Your task to perform on an android device: toggle location history Image 0: 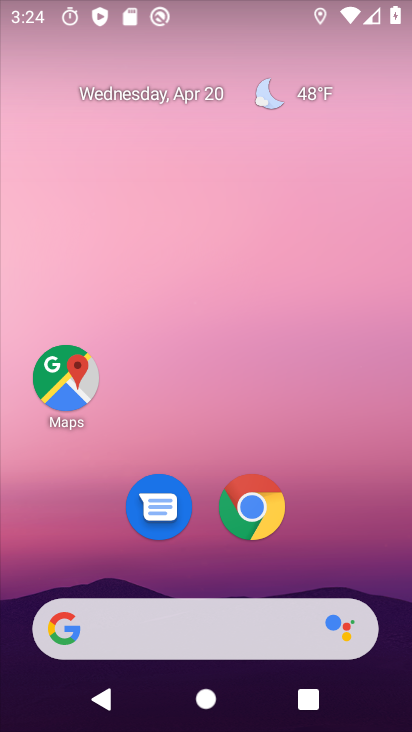
Step 0: drag from (211, 604) to (243, 178)
Your task to perform on an android device: toggle location history Image 1: 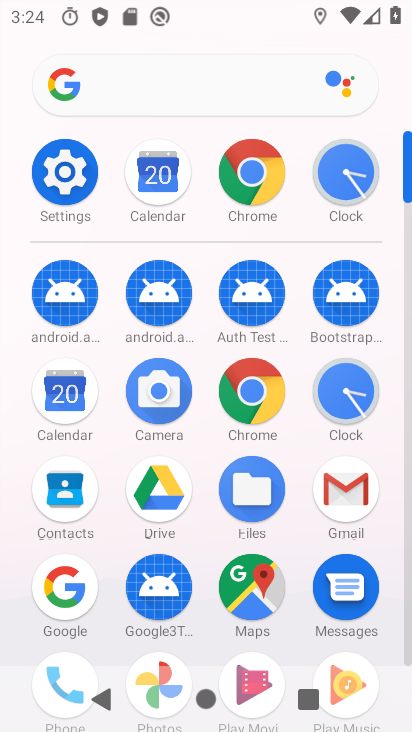
Step 1: click (74, 201)
Your task to perform on an android device: toggle location history Image 2: 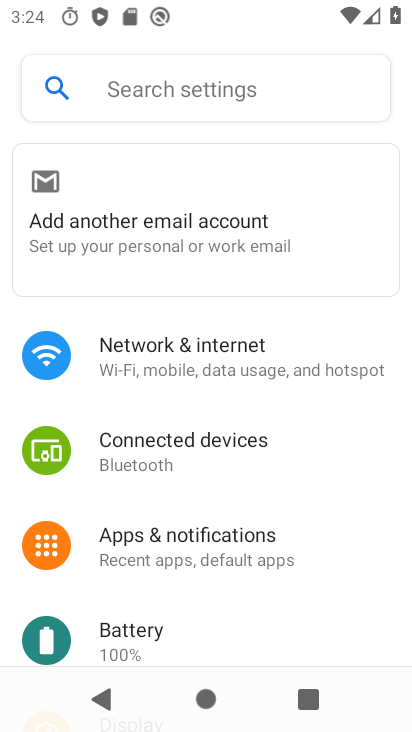
Step 2: drag from (124, 432) to (163, 4)
Your task to perform on an android device: toggle location history Image 3: 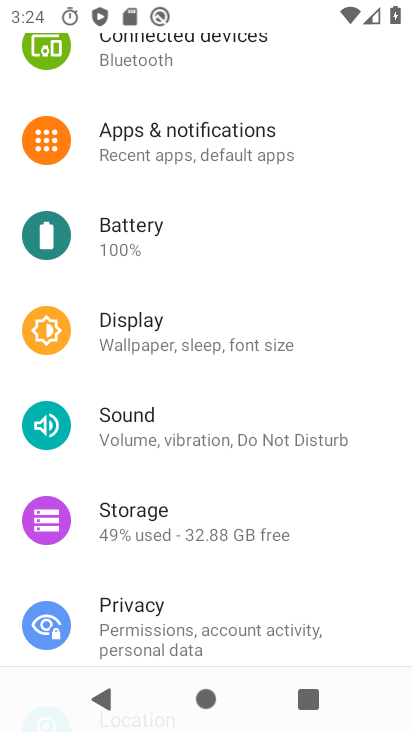
Step 3: drag from (168, 543) to (180, 206)
Your task to perform on an android device: toggle location history Image 4: 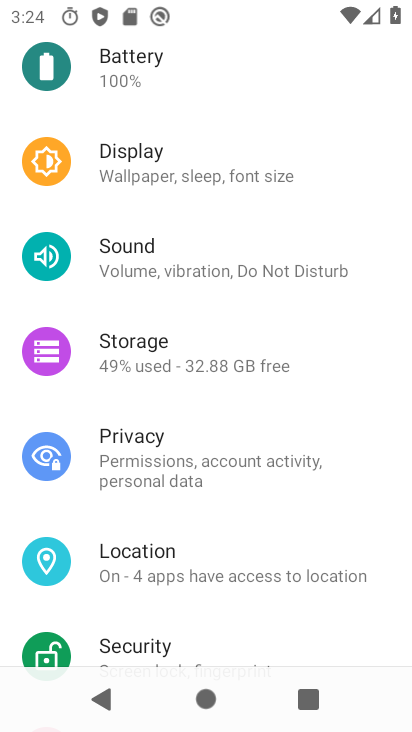
Step 4: click (177, 559)
Your task to perform on an android device: toggle location history Image 5: 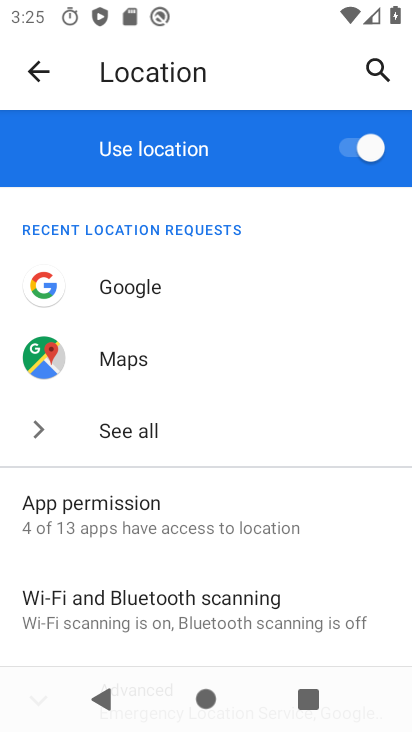
Step 5: drag from (188, 584) to (198, 394)
Your task to perform on an android device: toggle location history Image 6: 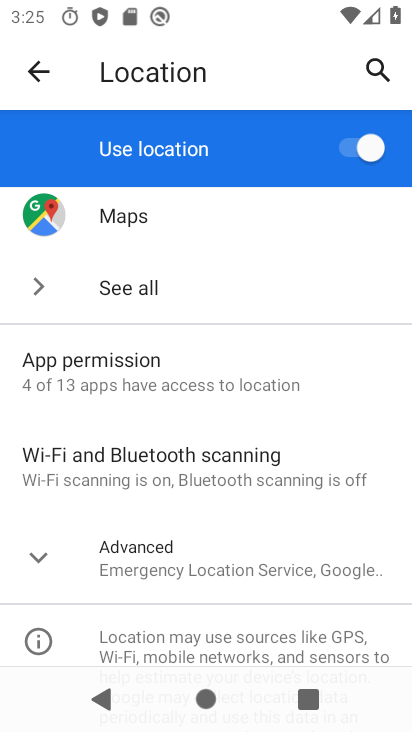
Step 6: click (216, 591)
Your task to perform on an android device: toggle location history Image 7: 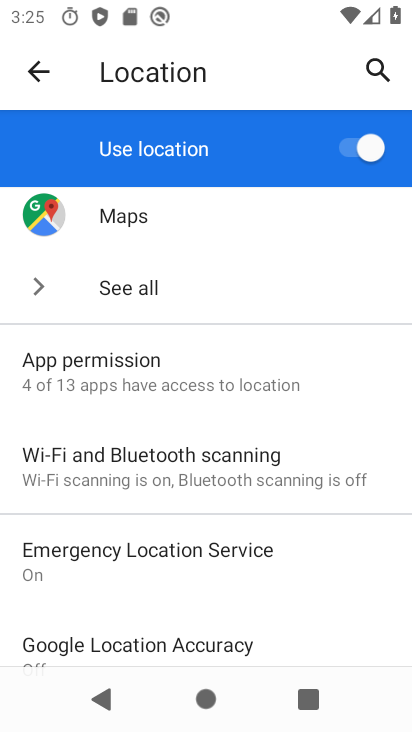
Step 7: drag from (196, 569) to (192, 335)
Your task to perform on an android device: toggle location history Image 8: 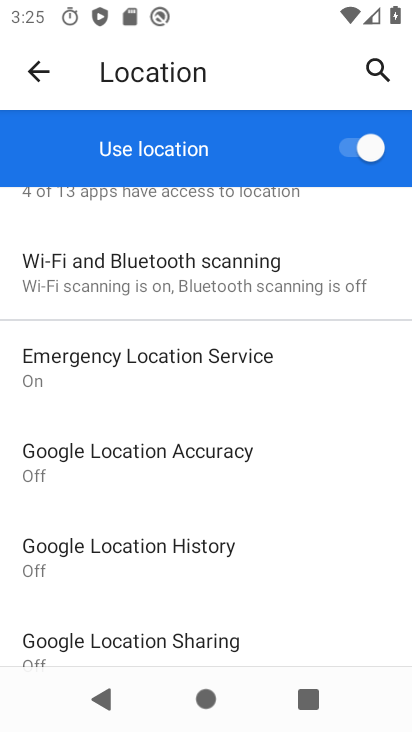
Step 8: click (179, 545)
Your task to perform on an android device: toggle location history Image 9: 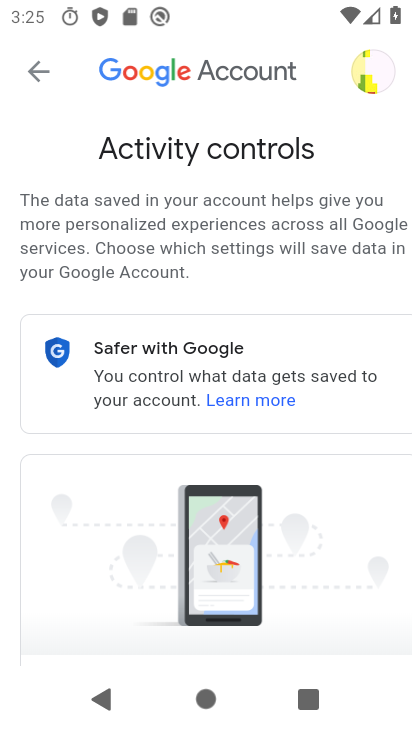
Step 9: drag from (174, 543) to (194, 150)
Your task to perform on an android device: toggle location history Image 10: 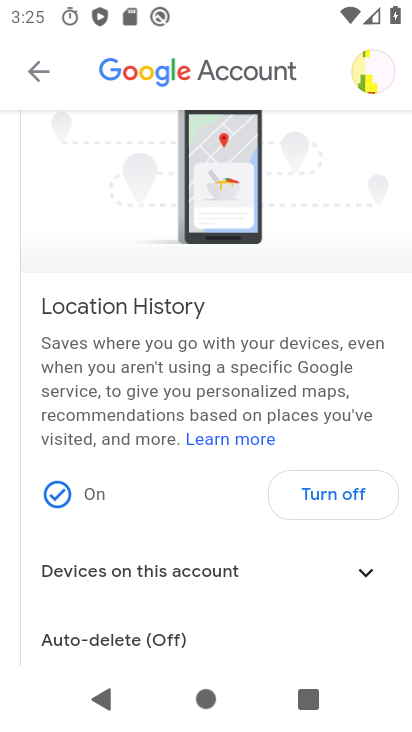
Step 10: click (329, 480)
Your task to perform on an android device: toggle location history Image 11: 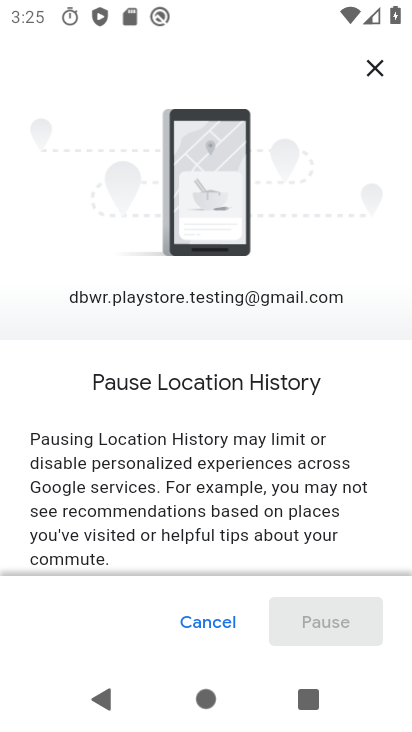
Step 11: drag from (301, 523) to (267, 66)
Your task to perform on an android device: toggle location history Image 12: 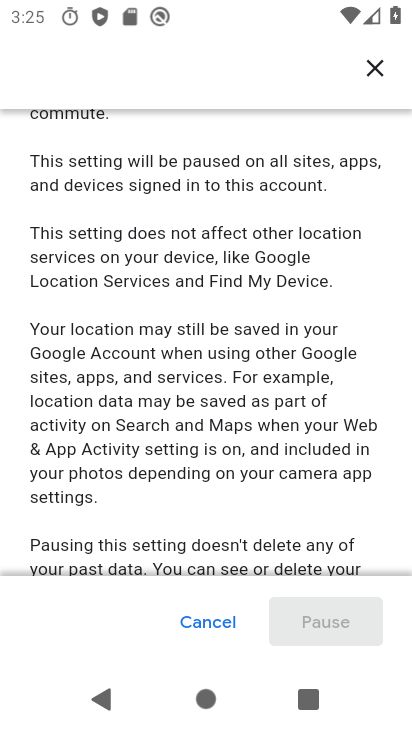
Step 12: drag from (259, 445) to (268, 126)
Your task to perform on an android device: toggle location history Image 13: 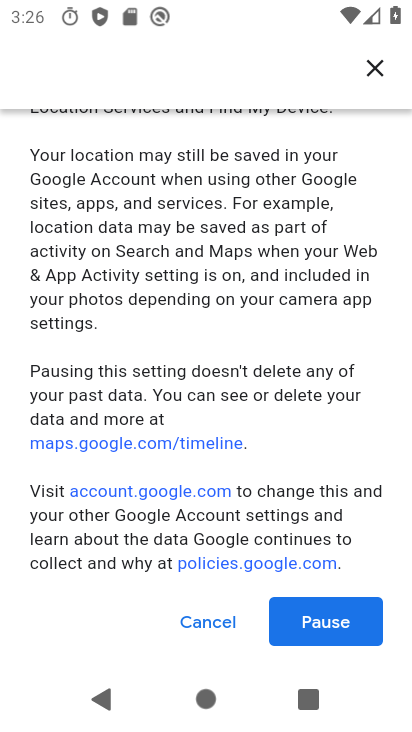
Step 13: click (322, 623)
Your task to perform on an android device: toggle location history Image 14: 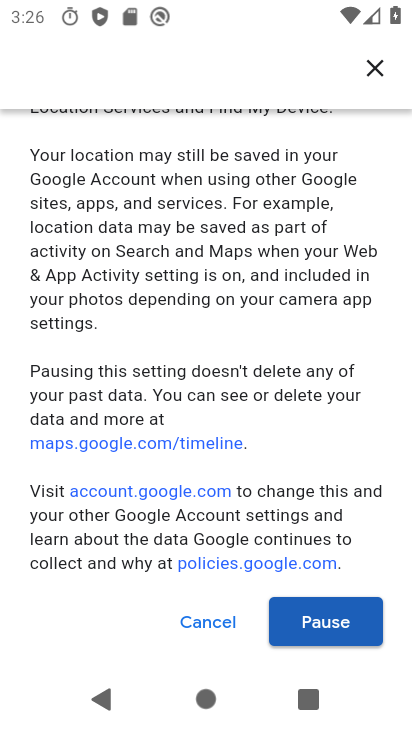
Step 14: click (340, 624)
Your task to perform on an android device: toggle location history Image 15: 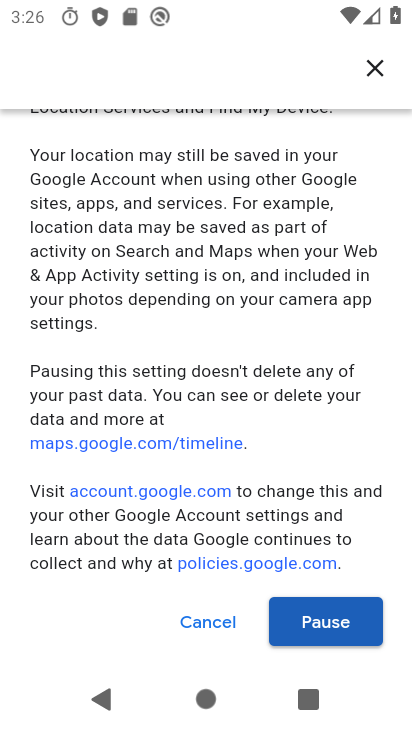
Step 15: click (340, 624)
Your task to perform on an android device: toggle location history Image 16: 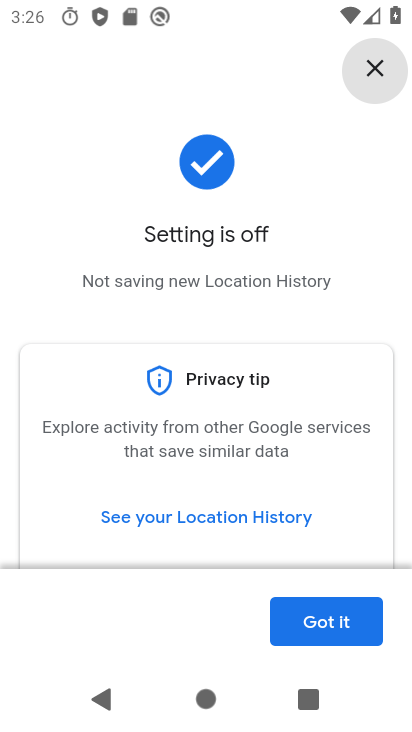
Step 16: click (340, 624)
Your task to perform on an android device: toggle location history Image 17: 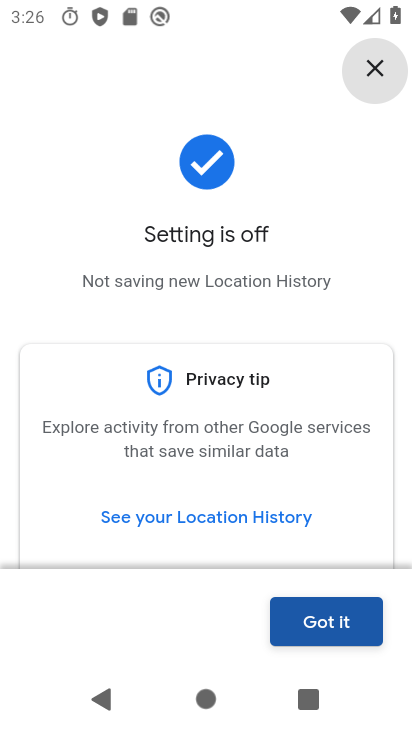
Step 17: task complete